Your task to perform on an android device: add a label to a message in the gmail app Image 0: 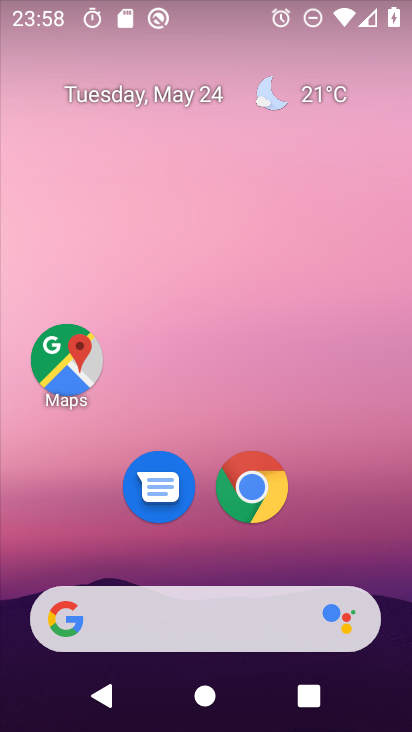
Step 0: drag from (380, 569) to (404, 14)
Your task to perform on an android device: add a label to a message in the gmail app Image 1: 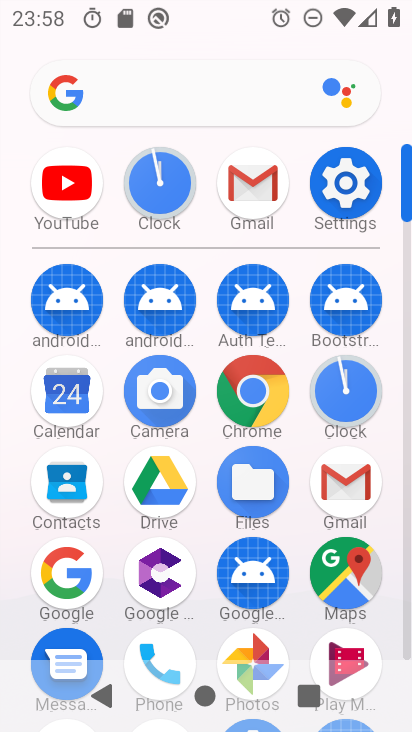
Step 1: click (240, 192)
Your task to perform on an android device: add a label to a message in the gmail app Image 2: 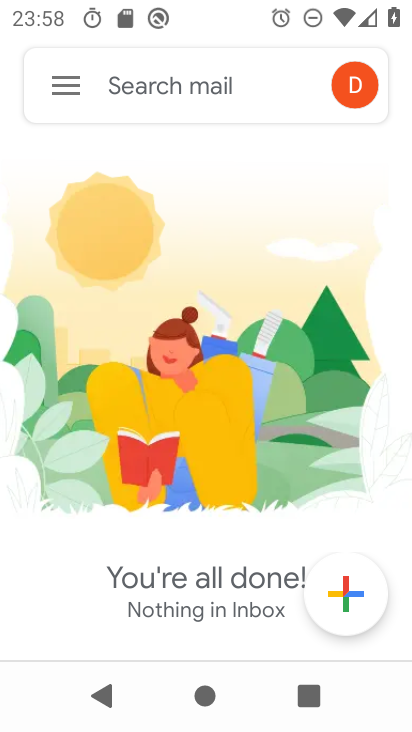
Step 2: click (67, 95)
Your task to perform on an android device: add a label to a message in the gmail app Image 3: 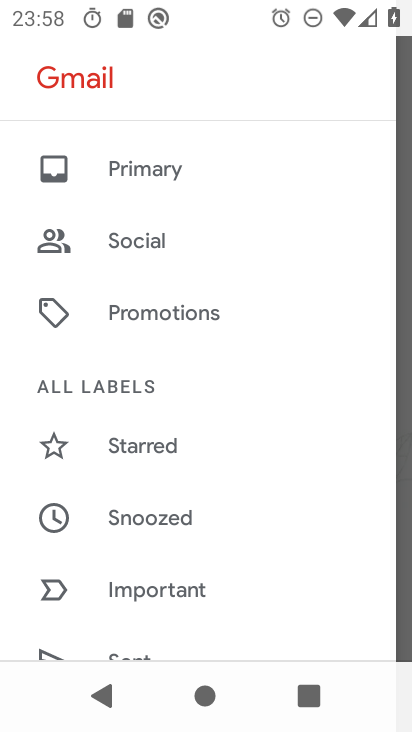
Step 3: drag from (250, 368) to (229, 135)
Your task to perform on an android device: add a label to a message in the gmail app Image 4: 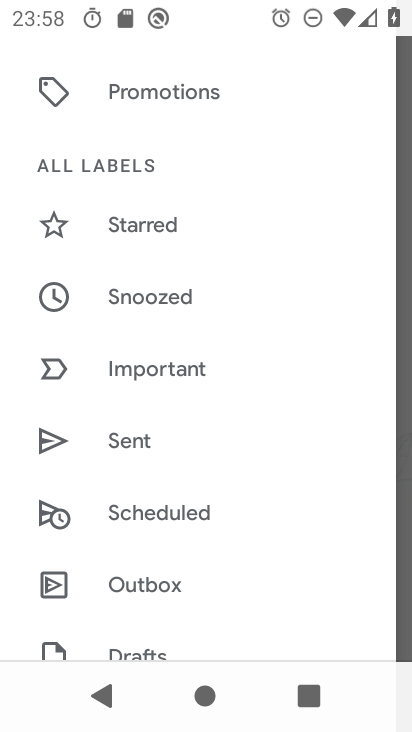
Step 4: drag from (243, 535) to (240, 252)
Your task to perform on an android device: add a label to a message in the gmail app Image 5: 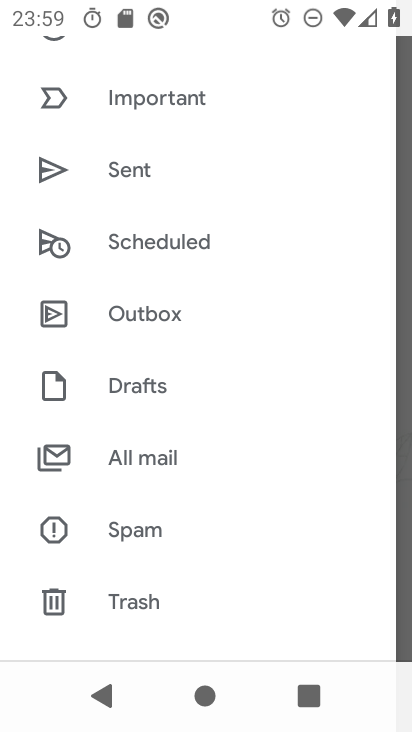
Step 5: click (134, 463)
Your task to perform on an android device: add a label to a message in the gmail app Image 6: 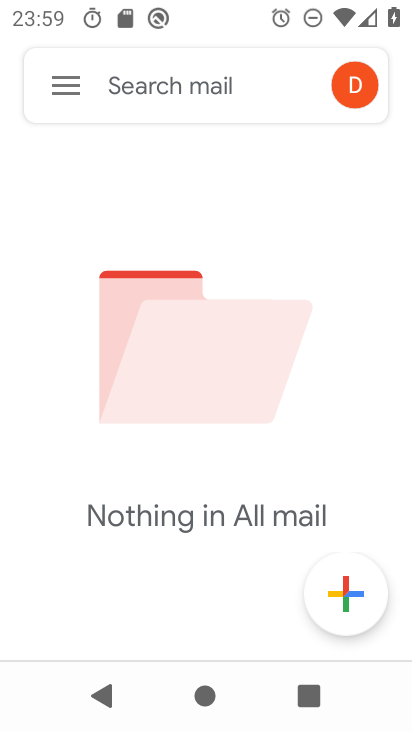
Step 6: task complete